Your task to perform on an android device: manage bookmarks in the chrome app Image 0: 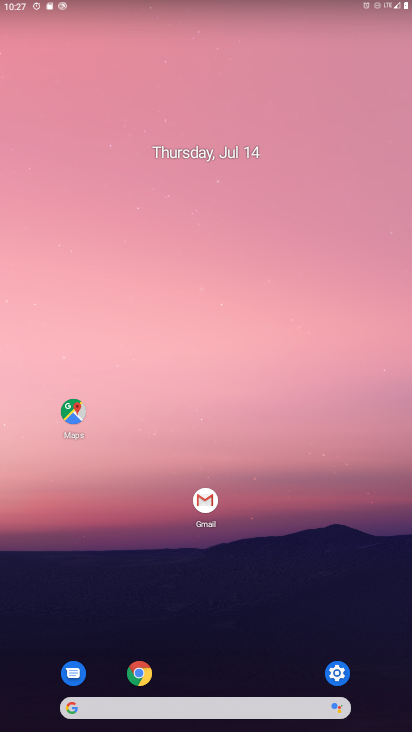
Step 0: press home button
Your task to perform on an android device: manage bookmarks in the chrome app Image 1: 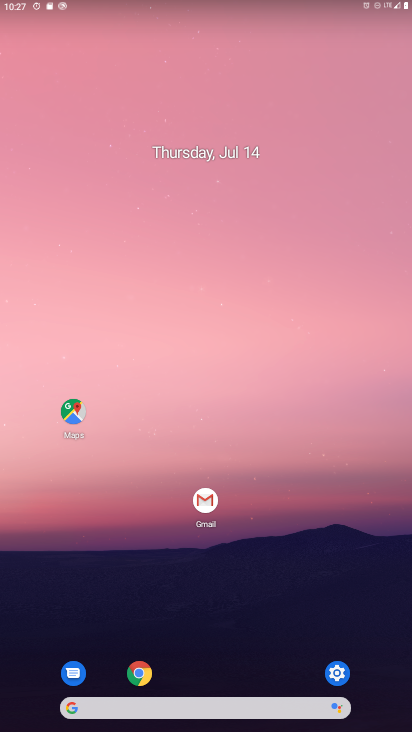
Step 1: click (146, 662)
Your task to perform on an android device: manage bookmarks in the chrome app Image 2: 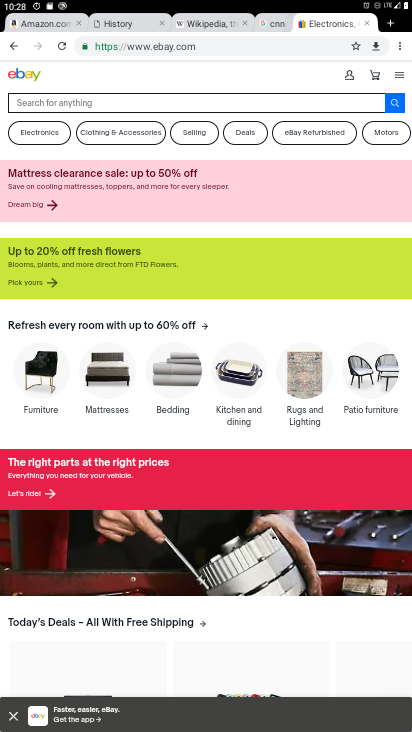
Step 2: task complete